Your task to perform on an android device: Go to ESPN.com Image 0: 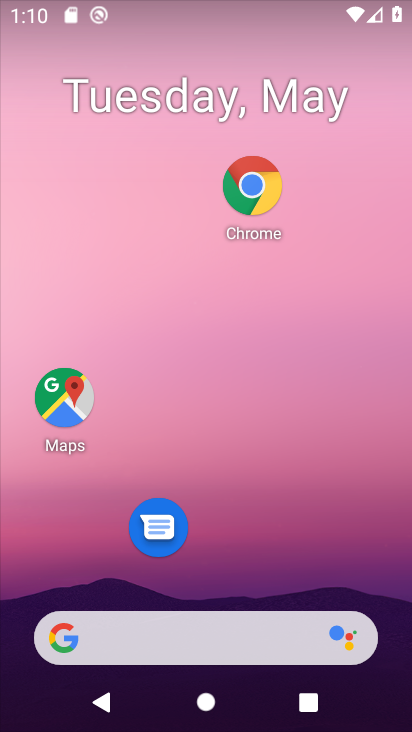
Step 0: click (256, 190)
Your task to perform on an android device: Go to ESPN.com Image 1: 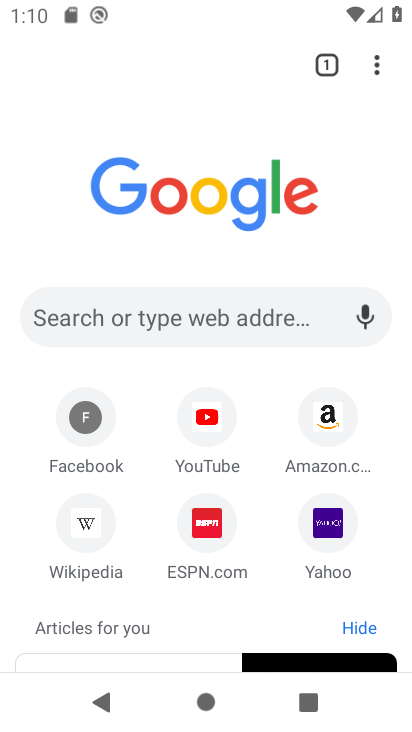
Step 1: click (199, 520)
Your task to perform on an android device: Go to ESPN.com Image 2: 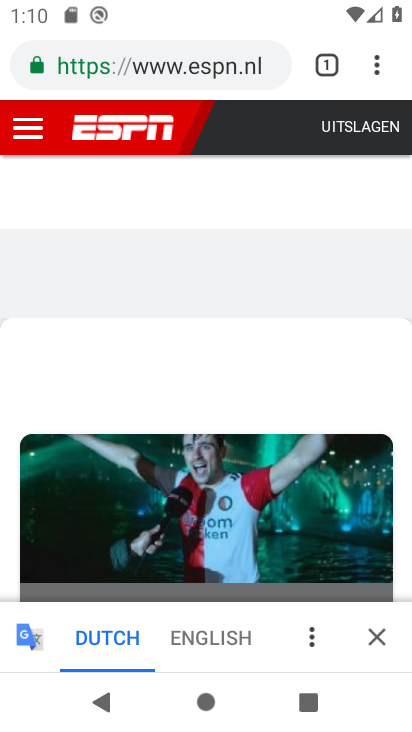
Step 2: task complete